Your task to perform on an android device: When is my next meeting? Image 0: 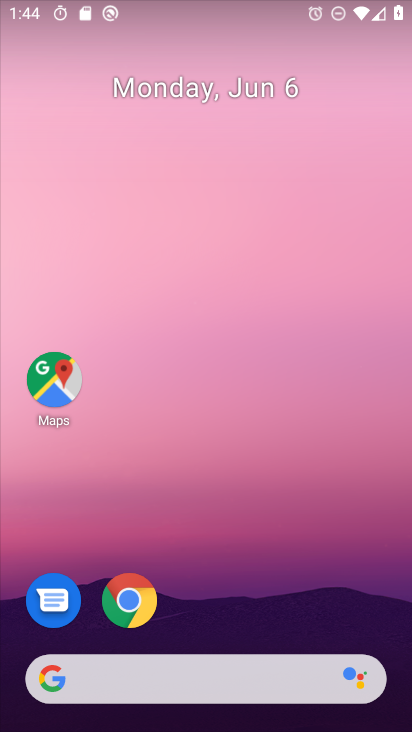
Step 0: drag from (222, 633) to (221, 184)
Your task to perform on an android device: When is my next meeting? Image 1: 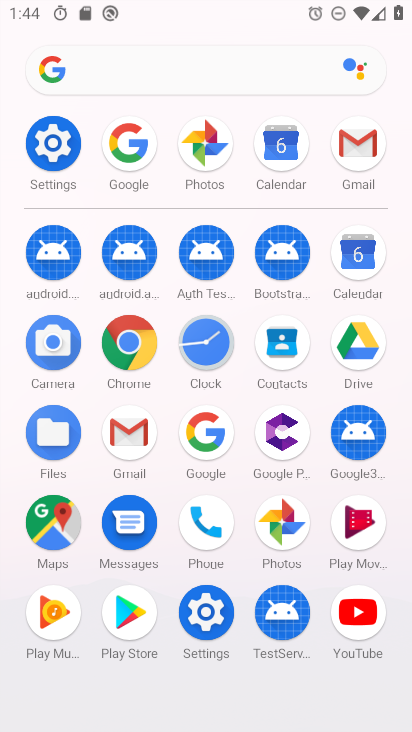
Step 1: click (345, 279)
Your task to perform on an android device: When is my next meeting? Image 2: 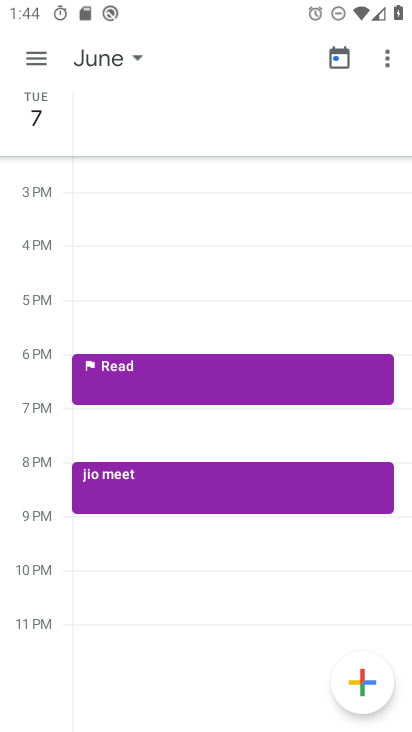
Step 2: task complete